Your task to perform on an android device: Go to network settings Image 0: 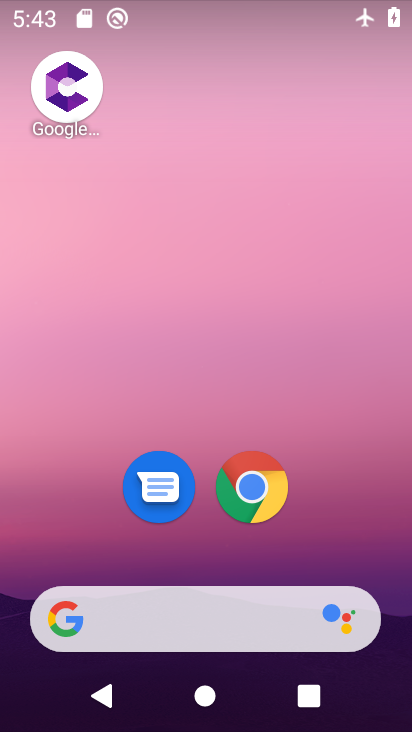
Step 0: drag from (212, 556) to (197, 50)
Your task to perform on an android device: Go to network settings Image 1: 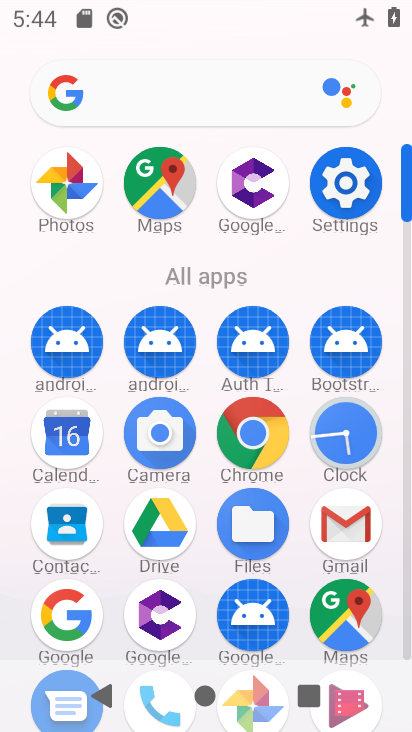
Step 1: click (339, 178)
Your task to perform on an android device: Go to network settings Image 2: 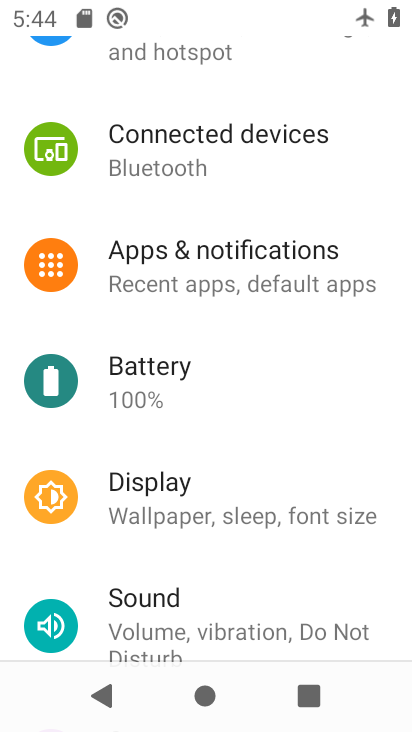
Step 2: drag from (209, 179) to (251, 730)
Your task to perform on an android device: Go to network settings Image 3: 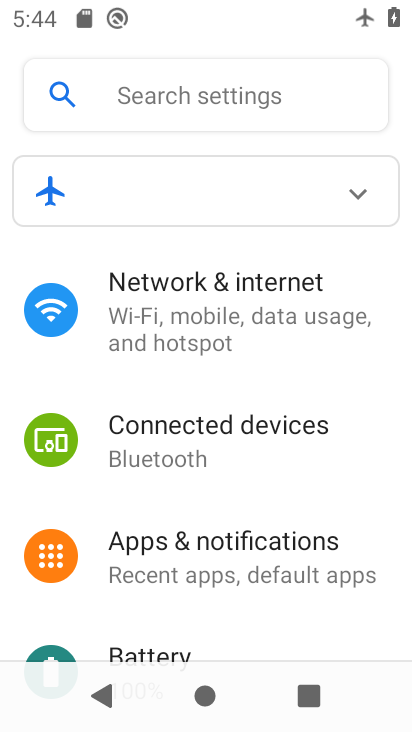
Step 3: click (192, 325)
Your task to perform on an android device: Go to network settings Image 4: 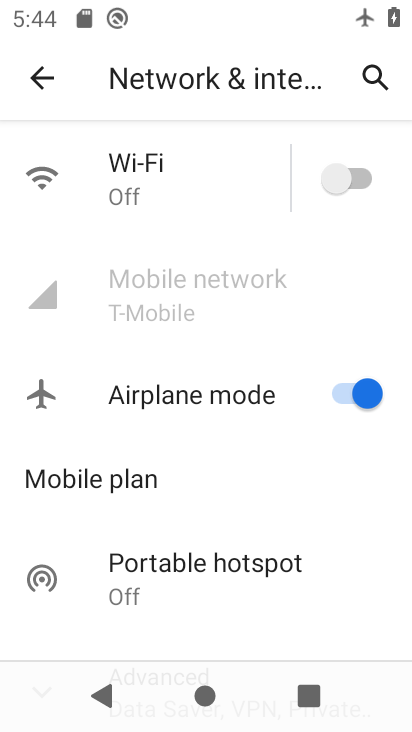
Step 4: drag from (129, 562) to (141, 103)
Your task to perform on an android device: Go to network settings Image 5: 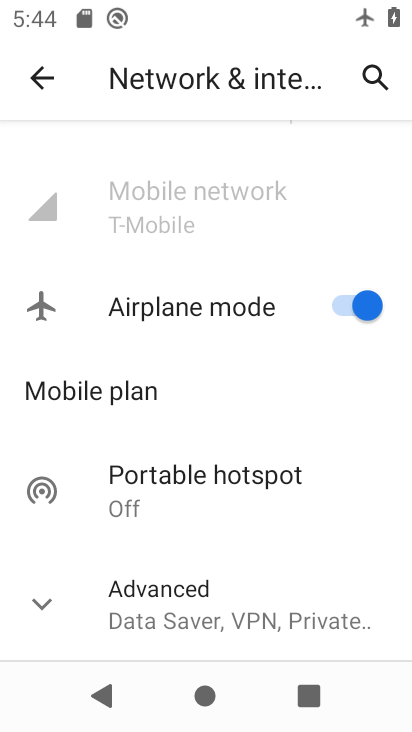
Step 5: click (38, 596)
Your task to perform on an android device: Go to network settings Image 6: 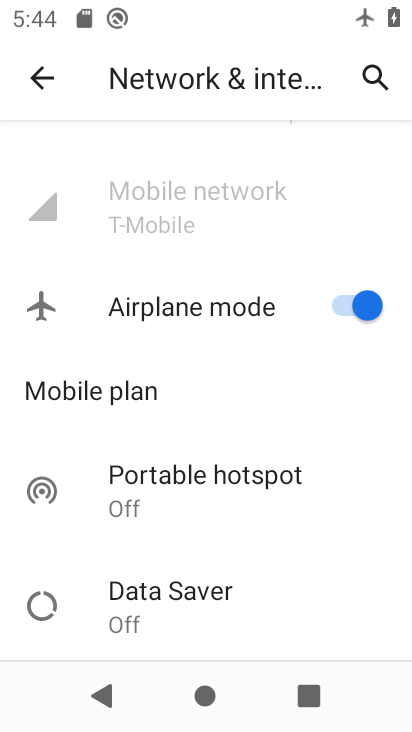
Step 6: task complete